Your task to perform on an android device: Clear the cart on amazon.com. Image 0: 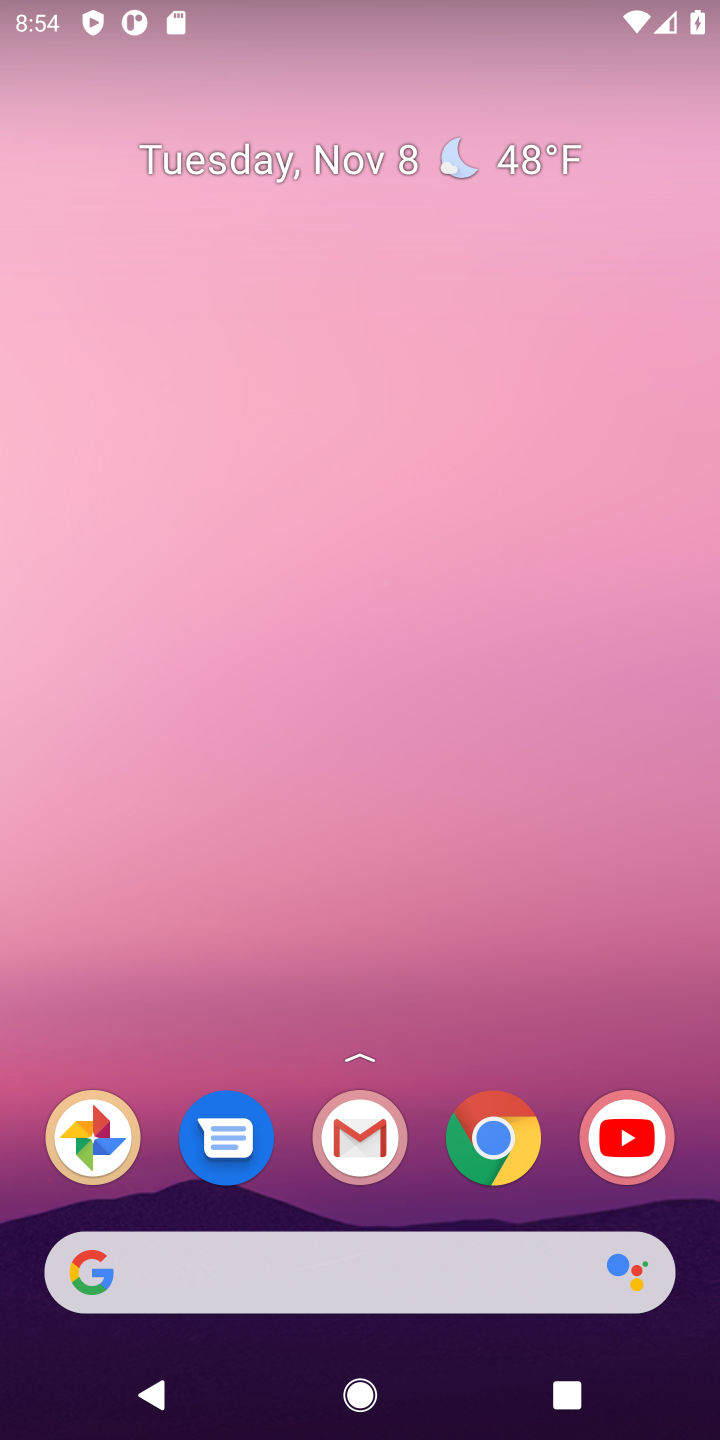
Step 0: press home button
Your task to perform on an android device: Clear the cart on amazon.com. Image 1: 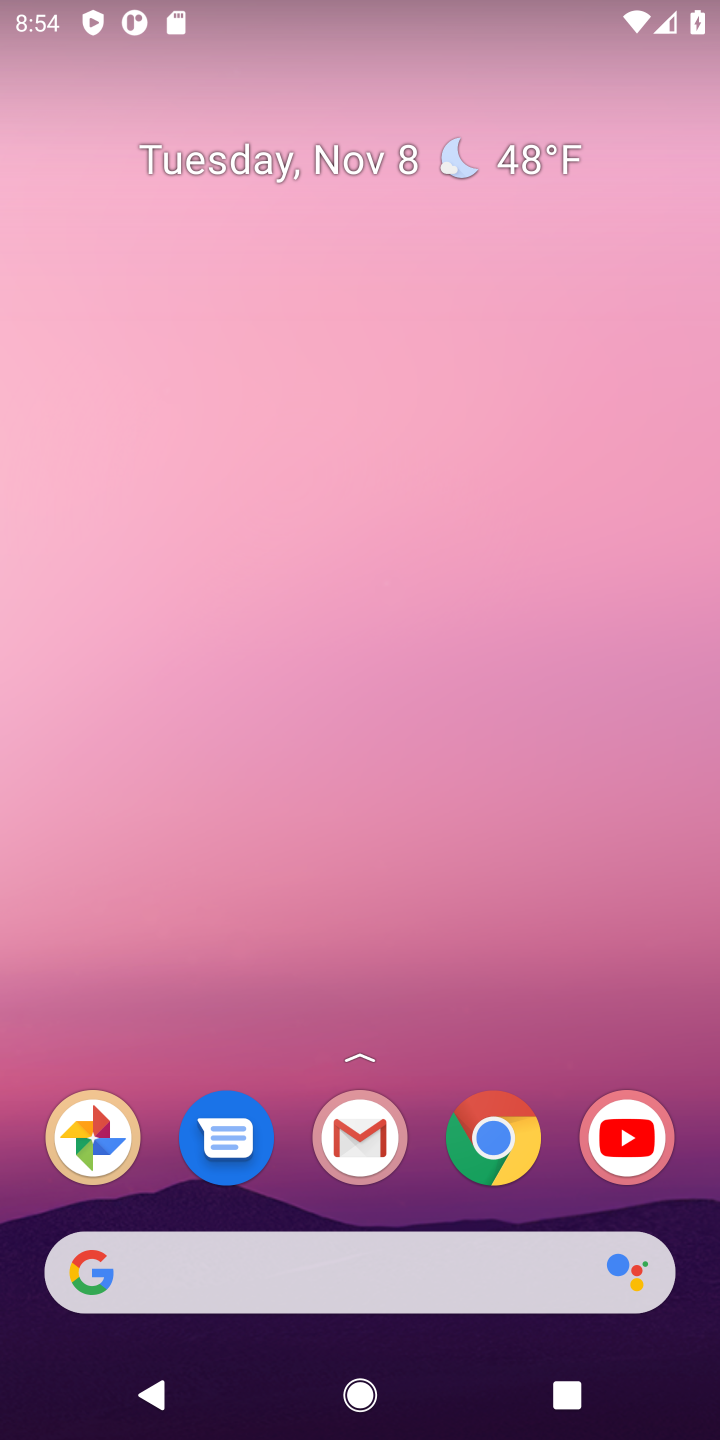
Step 1: click (500, 1124)
Your task to perform on an android device: Clear the cart on amazon.com. Image 2: 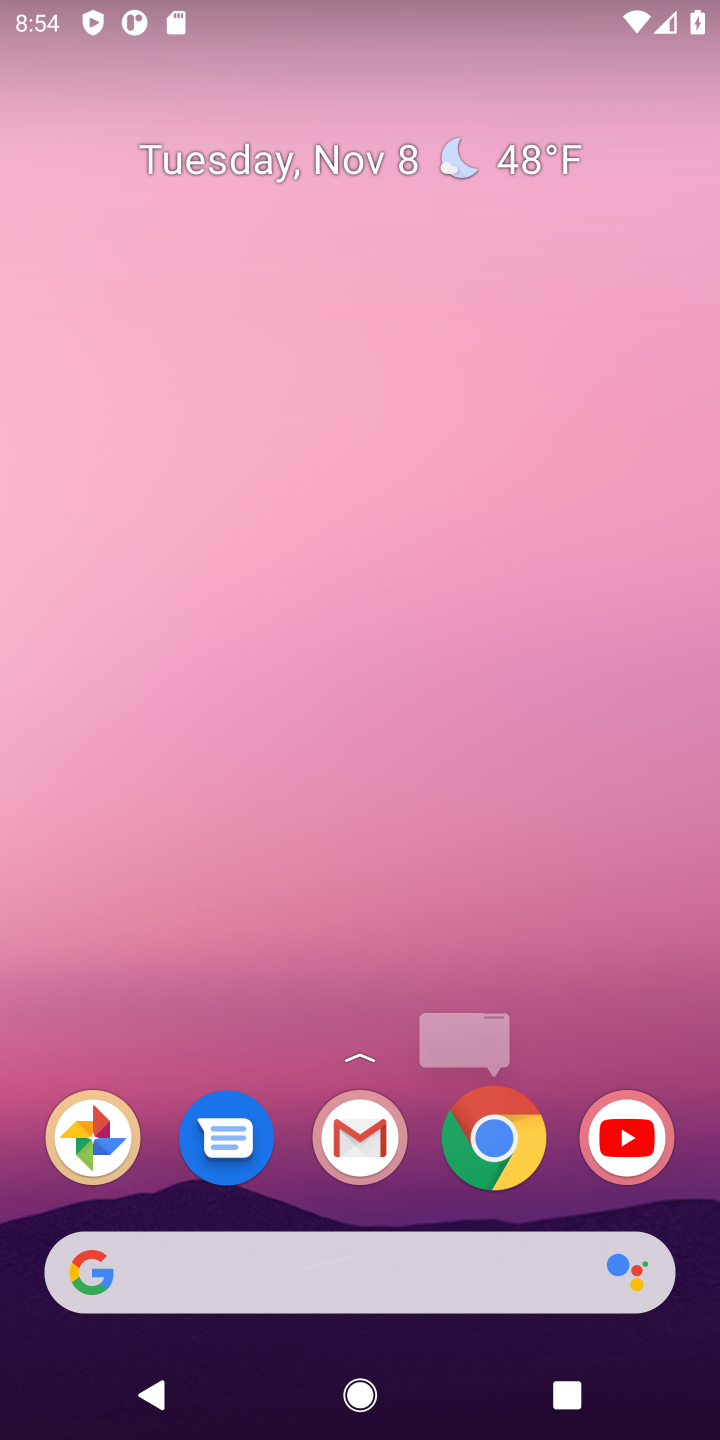
Step 2: click (492, 1112)
Your task to perform on an android device: Clear the cart on amazon.com. Image 3: 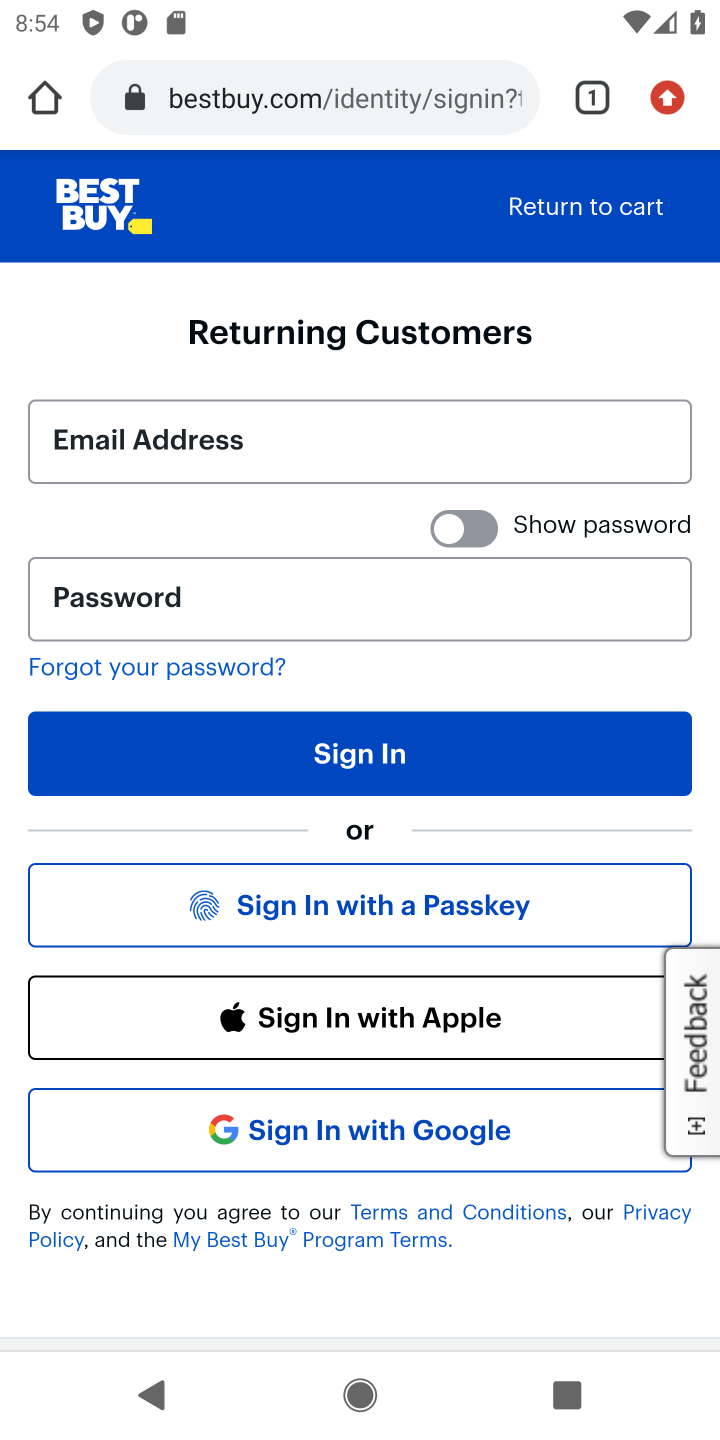
Step 3: click (305, 96)
Your task to perform on an android device: Clear the cart on amazon.com. Image 4: 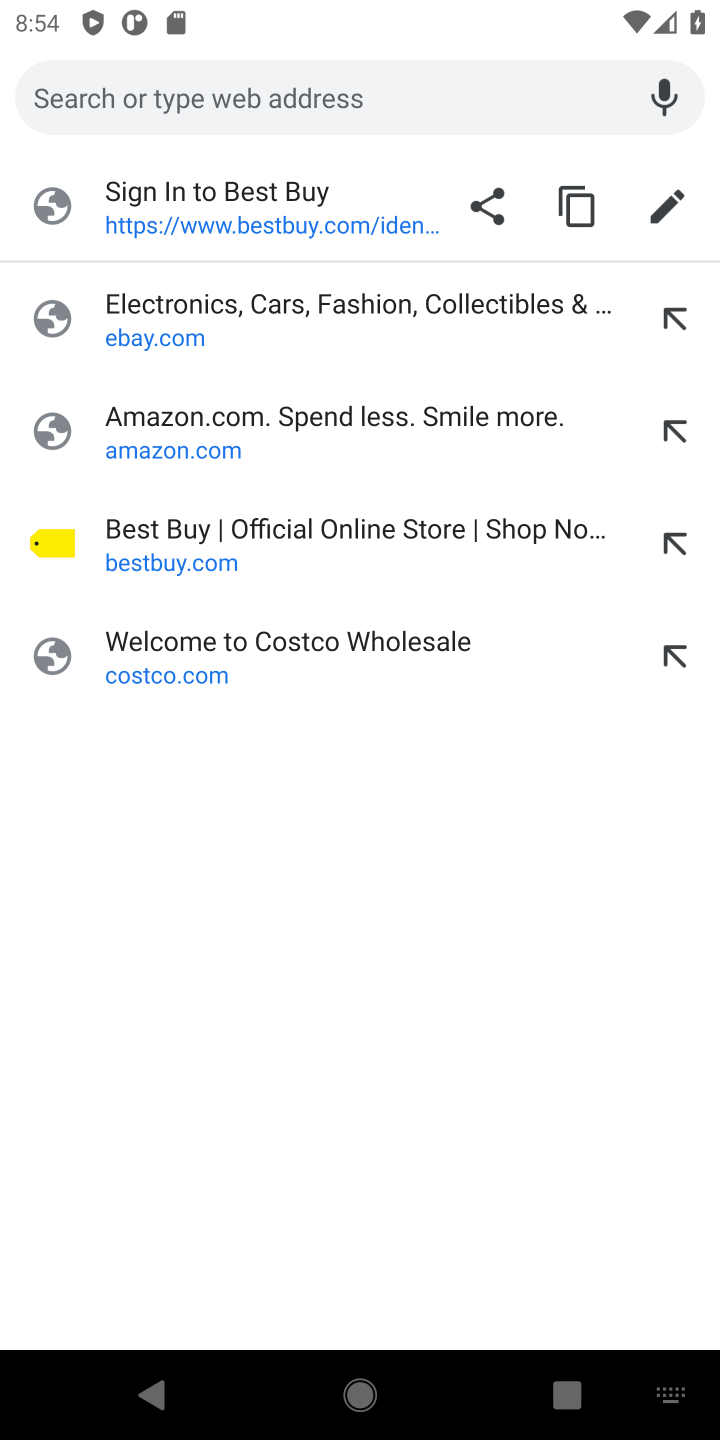
Step 4: click (176, 434)
Your task to perform on an android device: Clear the cart on amazon.com. Image 5: 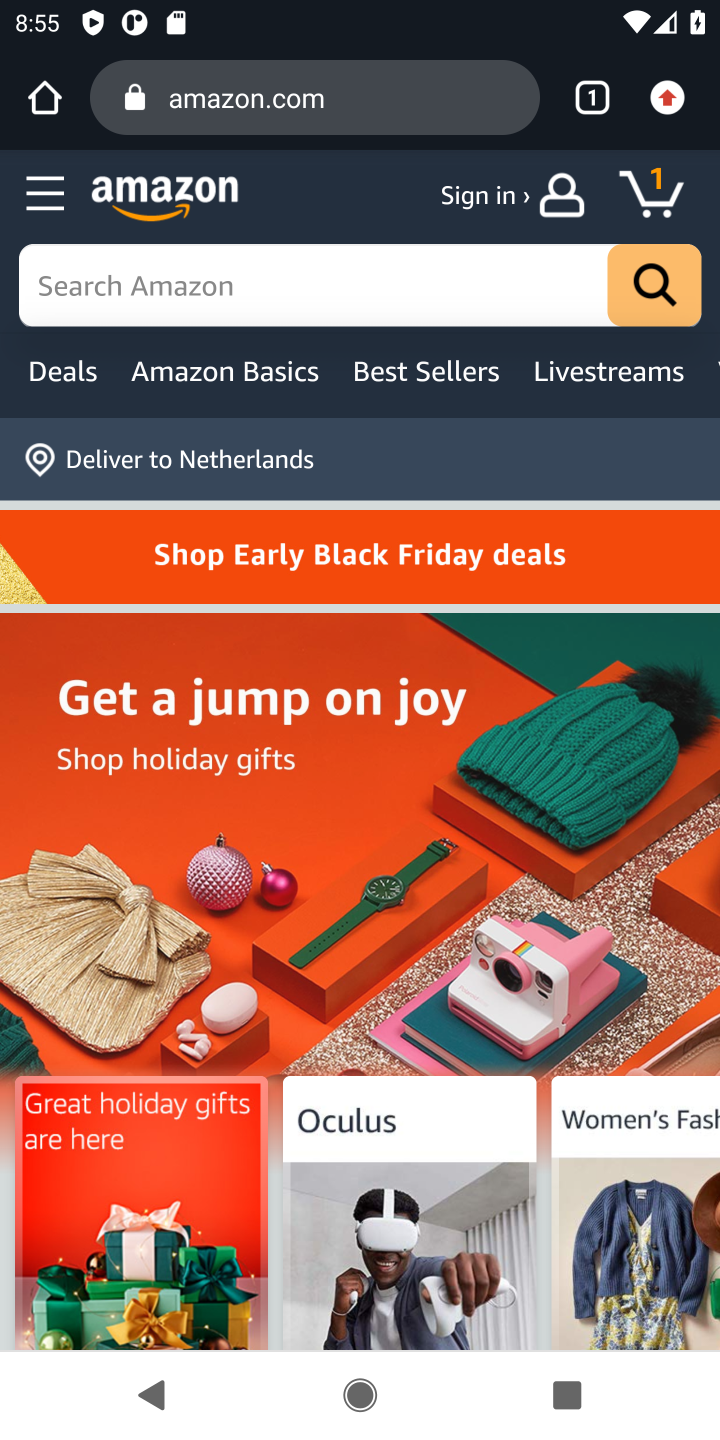
Step 5: click (167, 280)
Your task to perform on an android device: Clear the cart on amazon.com. Image 6: 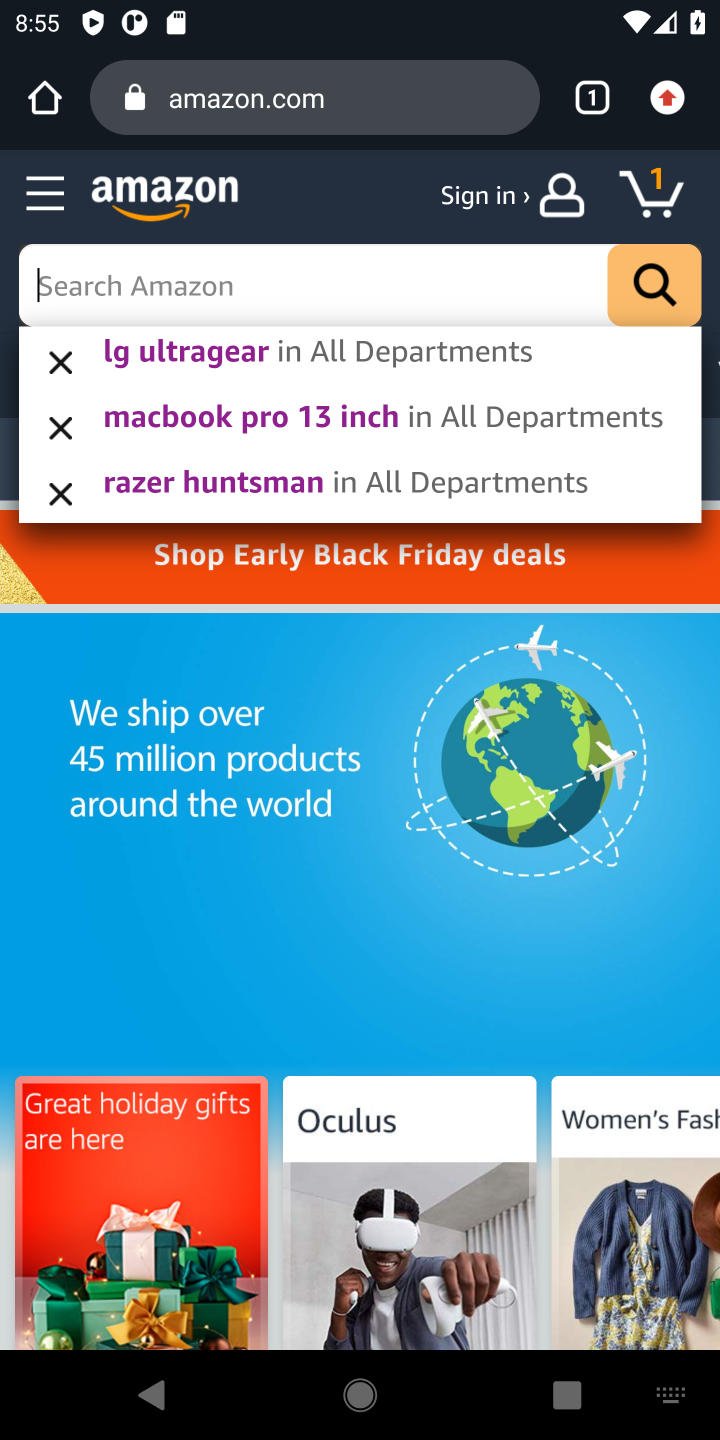
Step 6: click (652, 184)
Your task to perform on an android device: Clear the cart on amazon.com. Image 7: 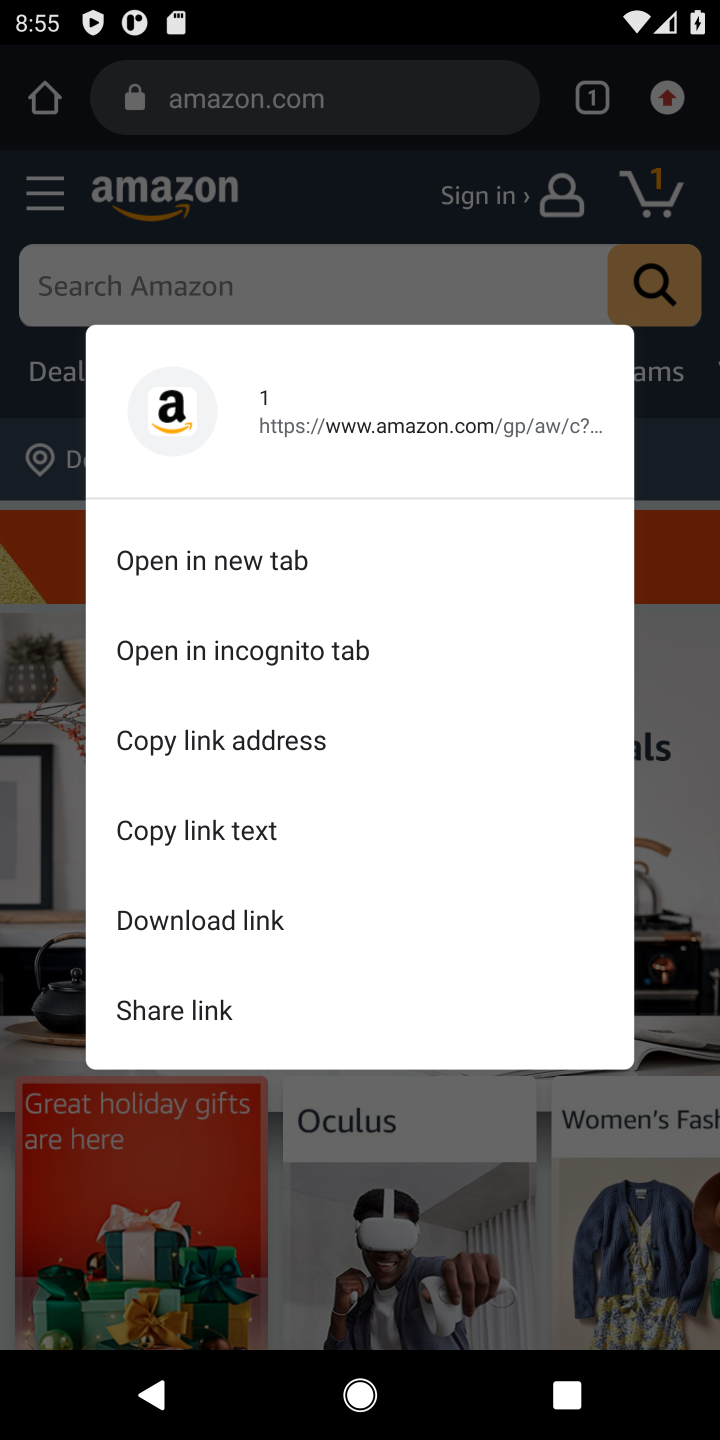
Step 7: click (649, 201)
Your task to perform on an android device: Clear the cart on amazon.com. Image 8: 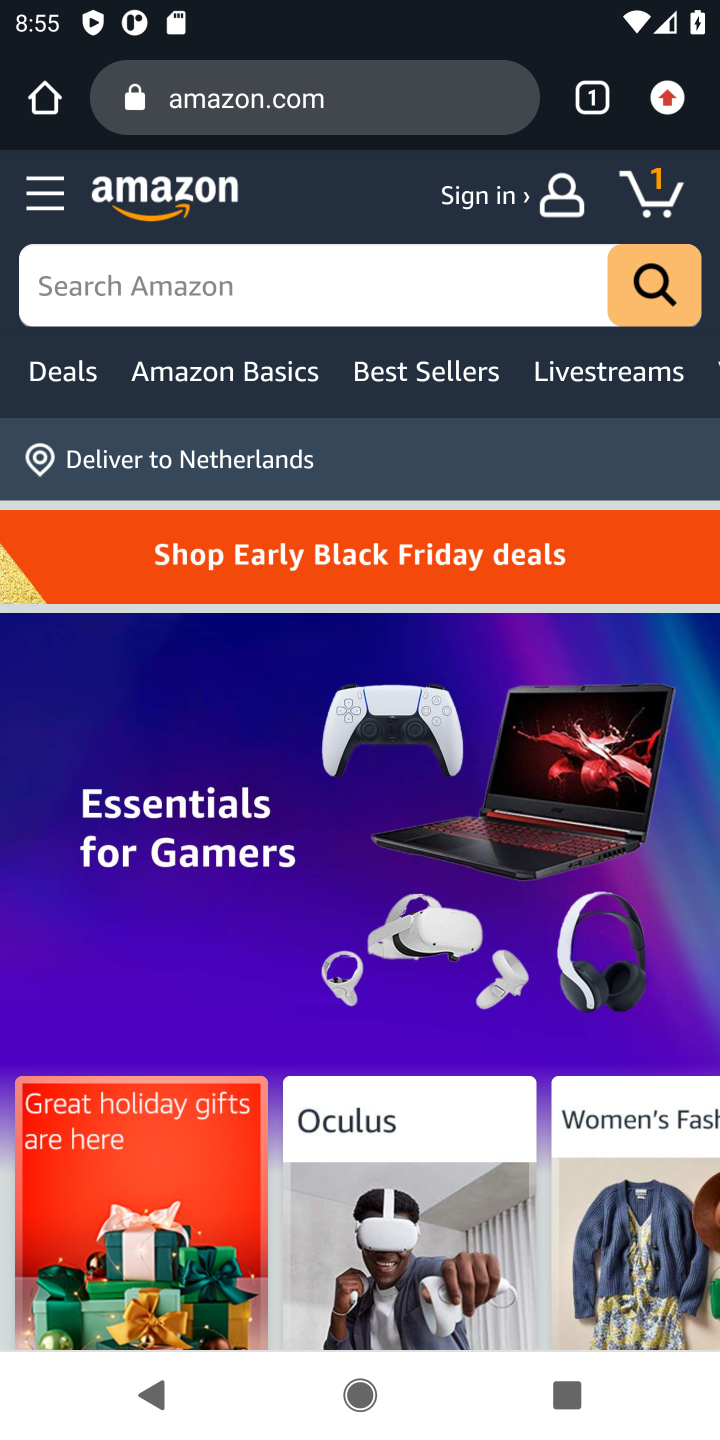
Step 8: click (663, 178)
Your task to perform on an android device: Clear the cart on amazon.com. Image 9: 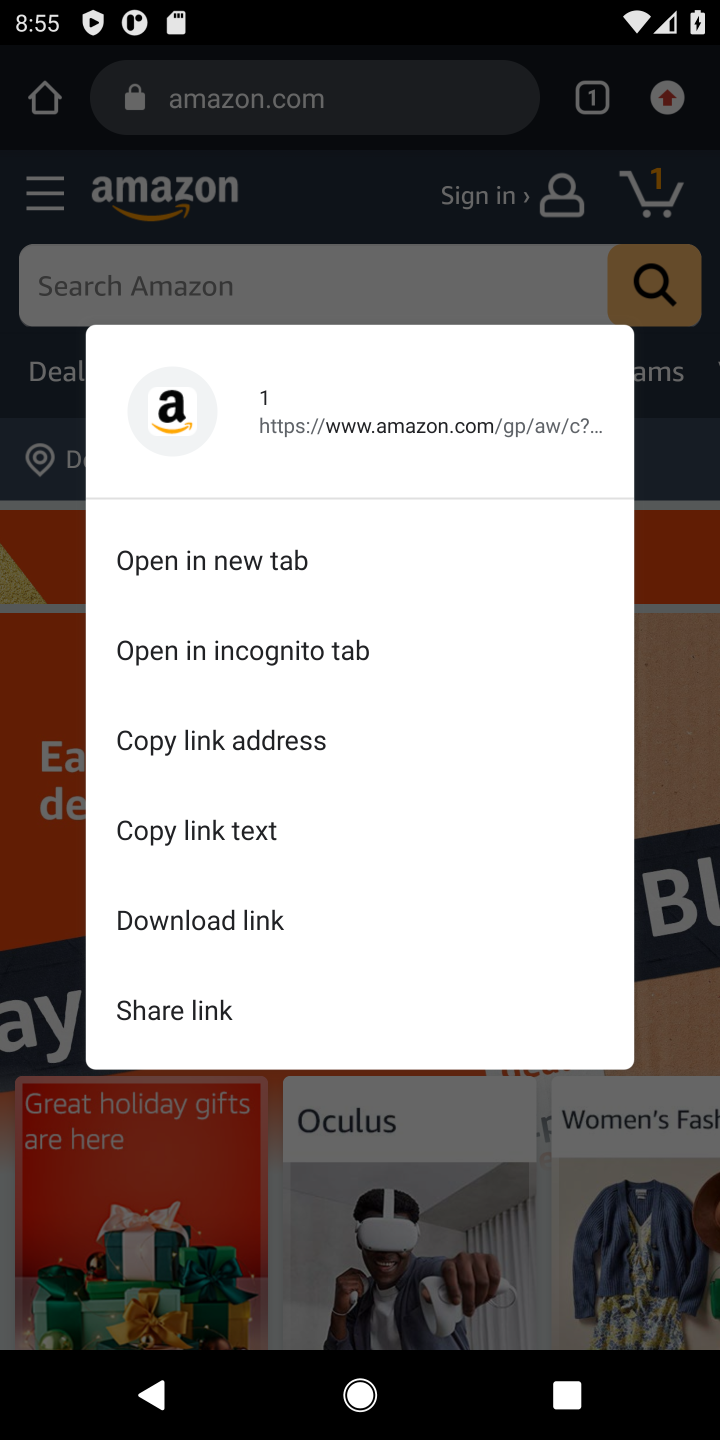
Step 9: click (644, 202)
Your task to perform on an android device: Clear the cart on amazon.com. Image 10: 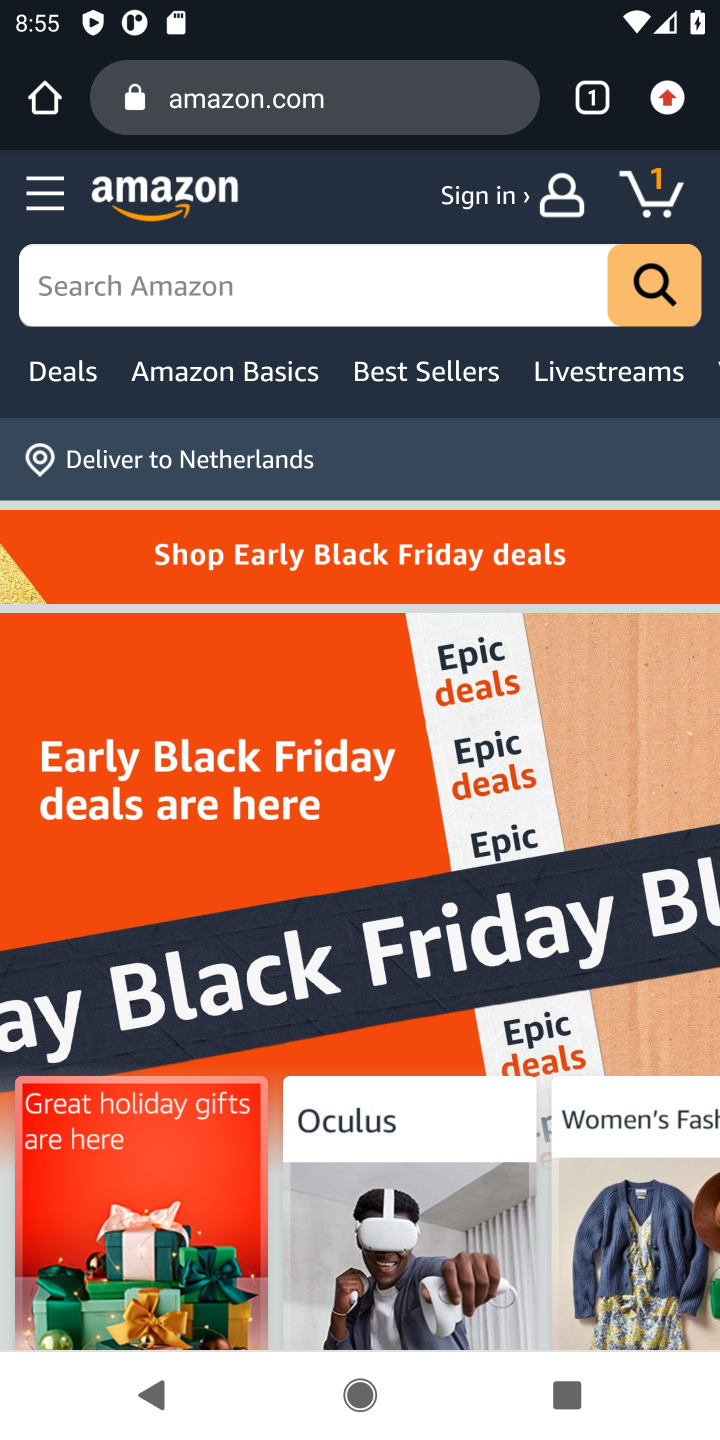
Step 10: click (664, 183)
Your task to perform on an android device: Clear the cart on amazon.com. Image 11: 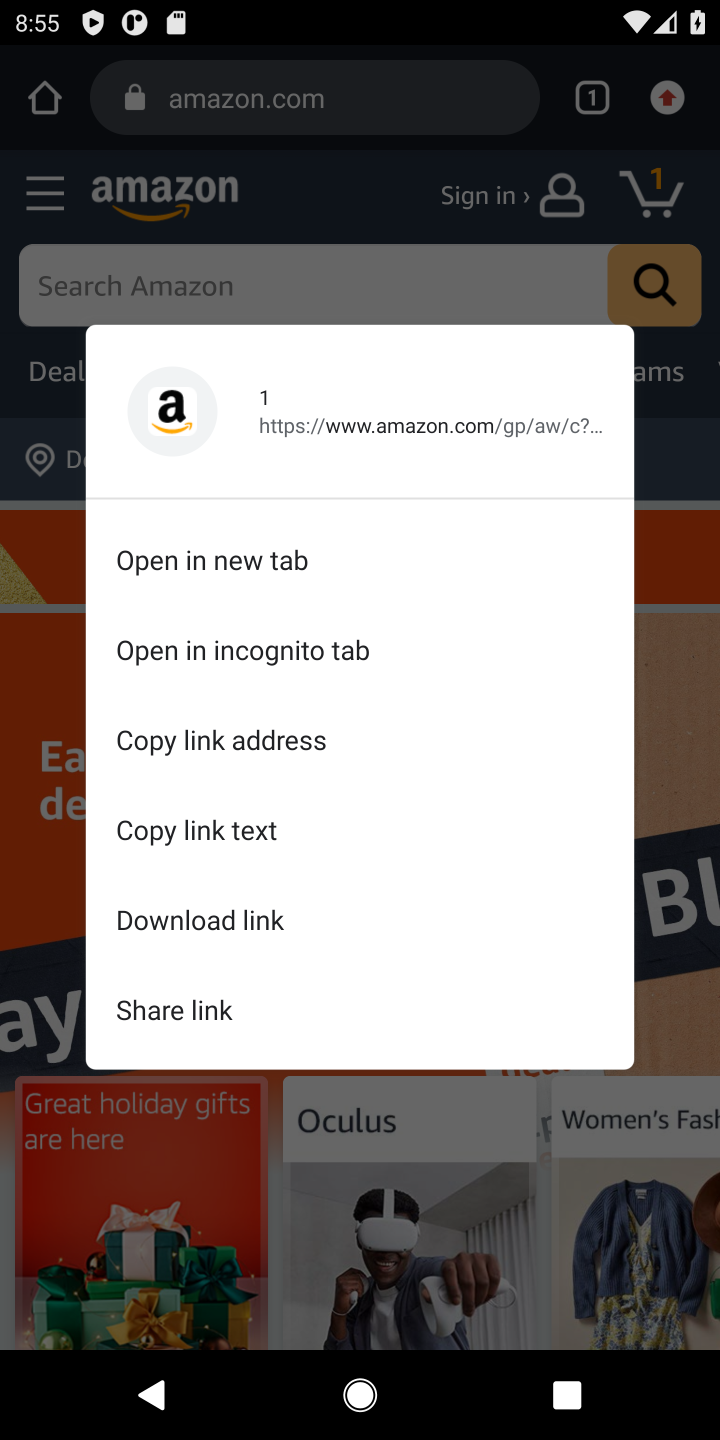
Step 11: click (664, 189)
Your task to perform on an android device: Clear the cart on amazon.com. Image 12: 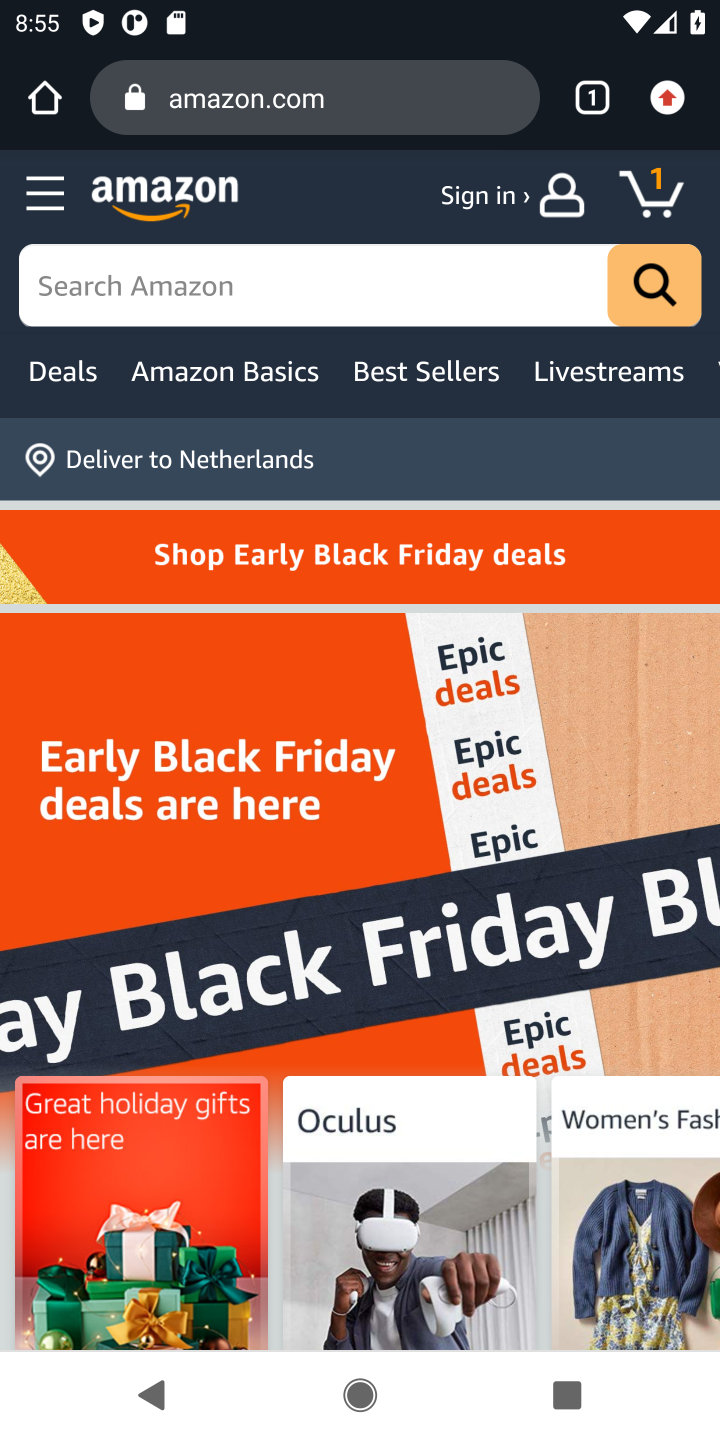
Step 12: click (655, 192)
Your task to perform on an android device: Clear the cart on amazon.com. Image 13: 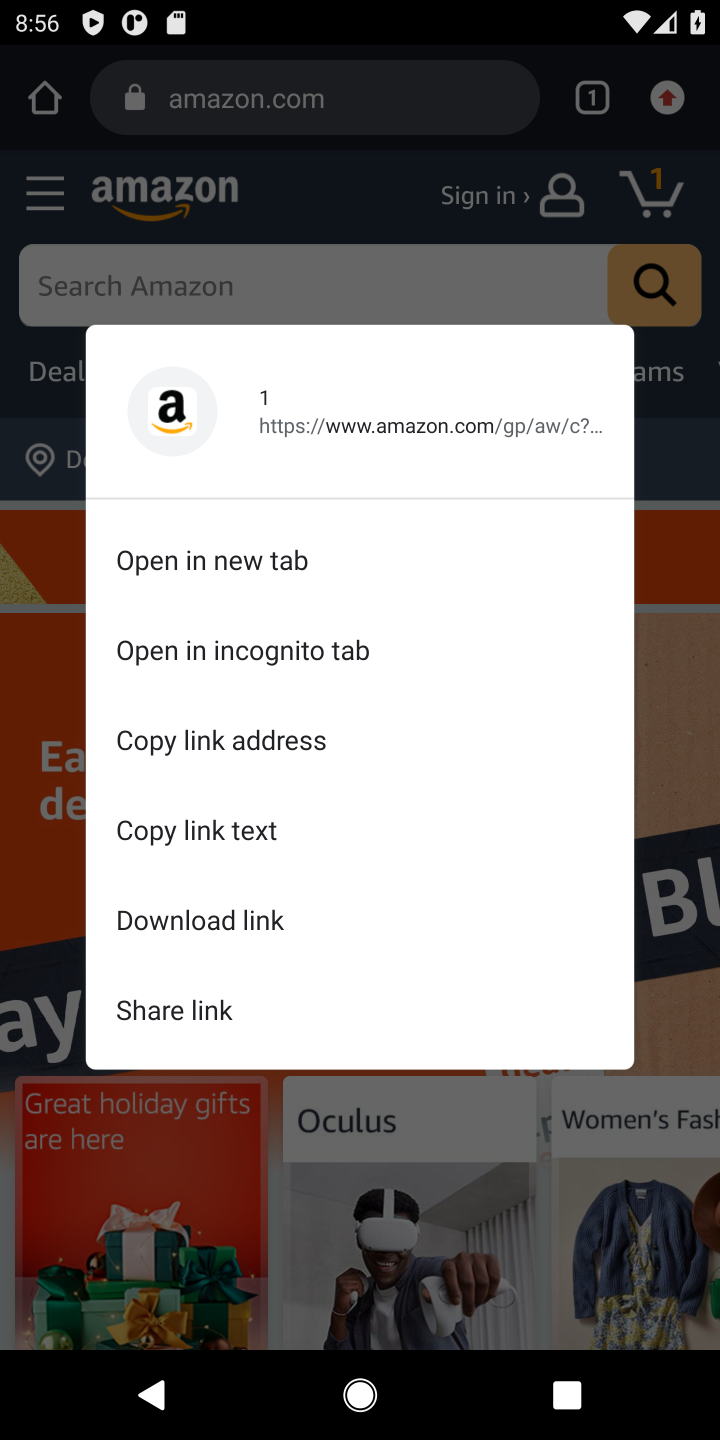
Step 13: click (659, 184)
Your task to perform on an android device: Clear the cart on amazon.com. Image 14: 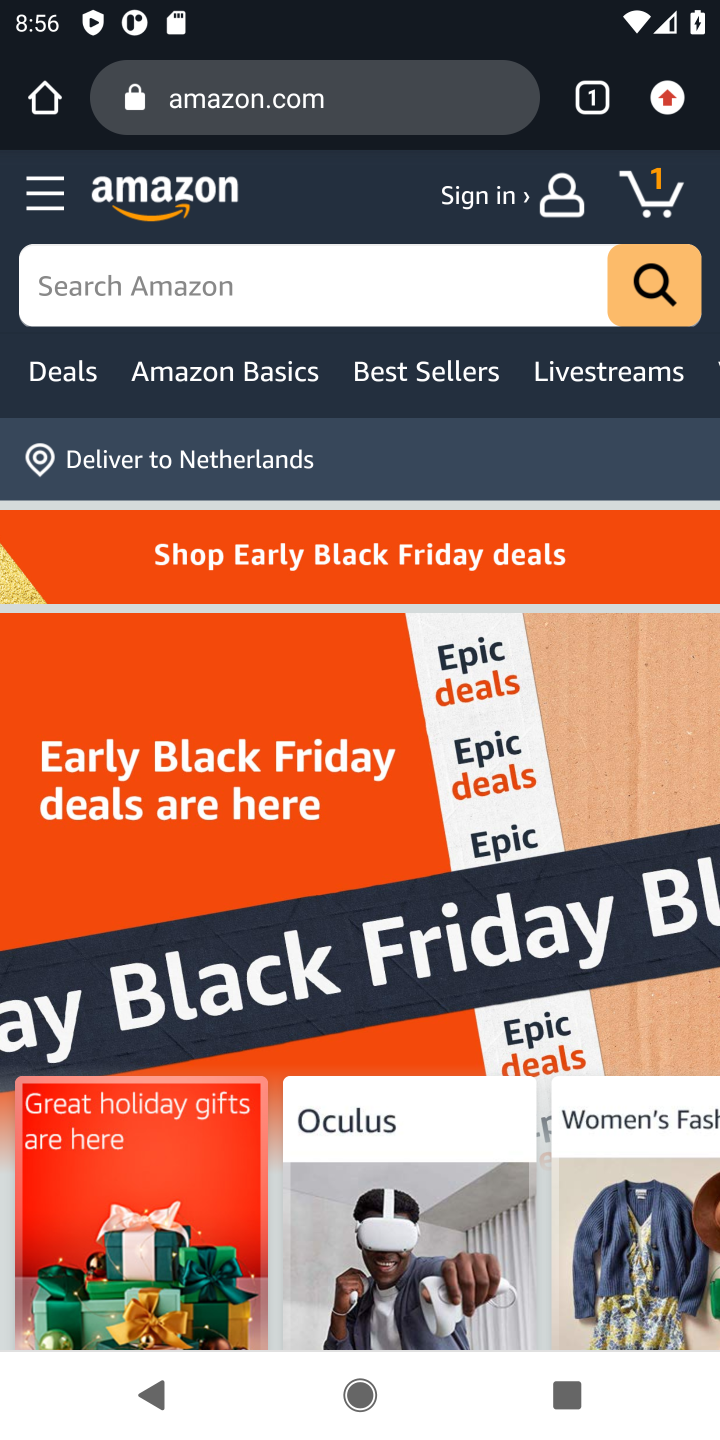
Step 14: click (659, 210)
Your task to perform on an android device: Clear the cart on amazon.com. Image 15: 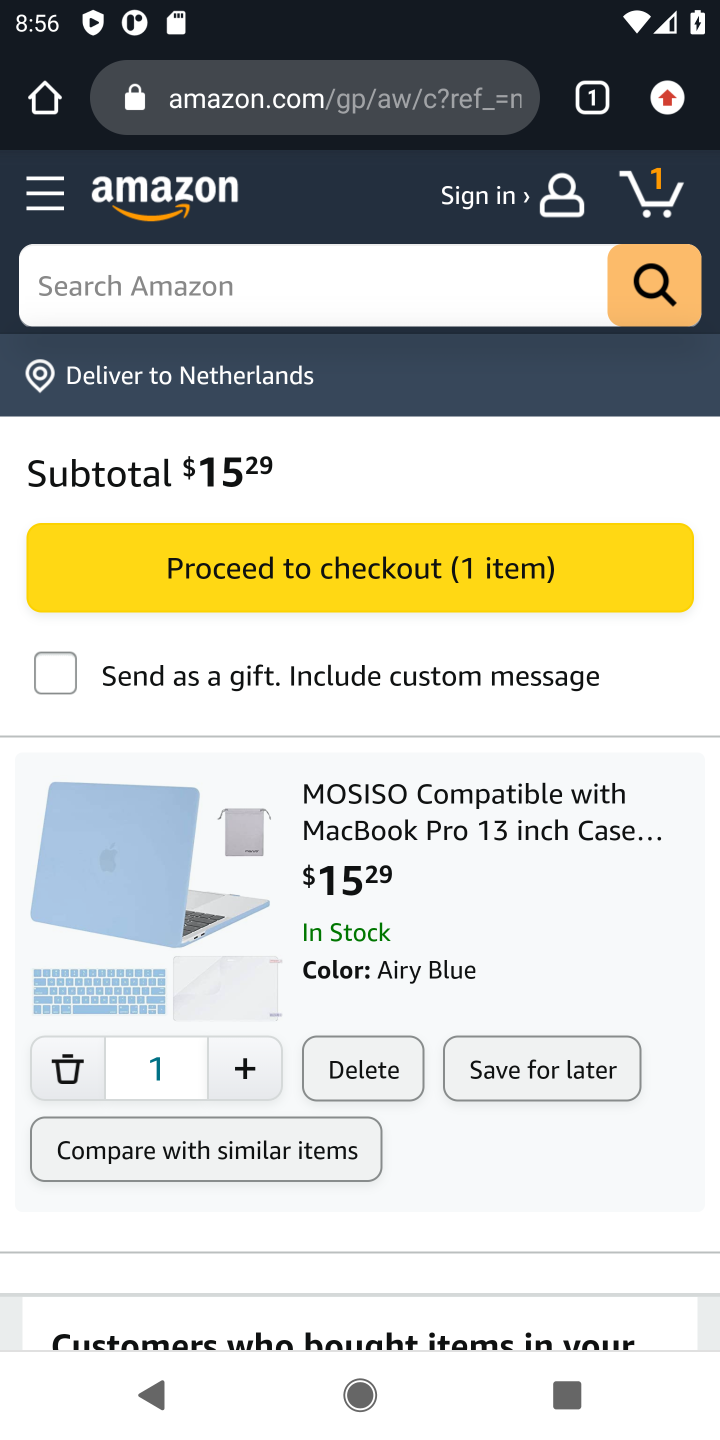
Step 15: click (364, 1062)
Your task to perform on an android device: Clear the cart on amazon.com. Image 16: 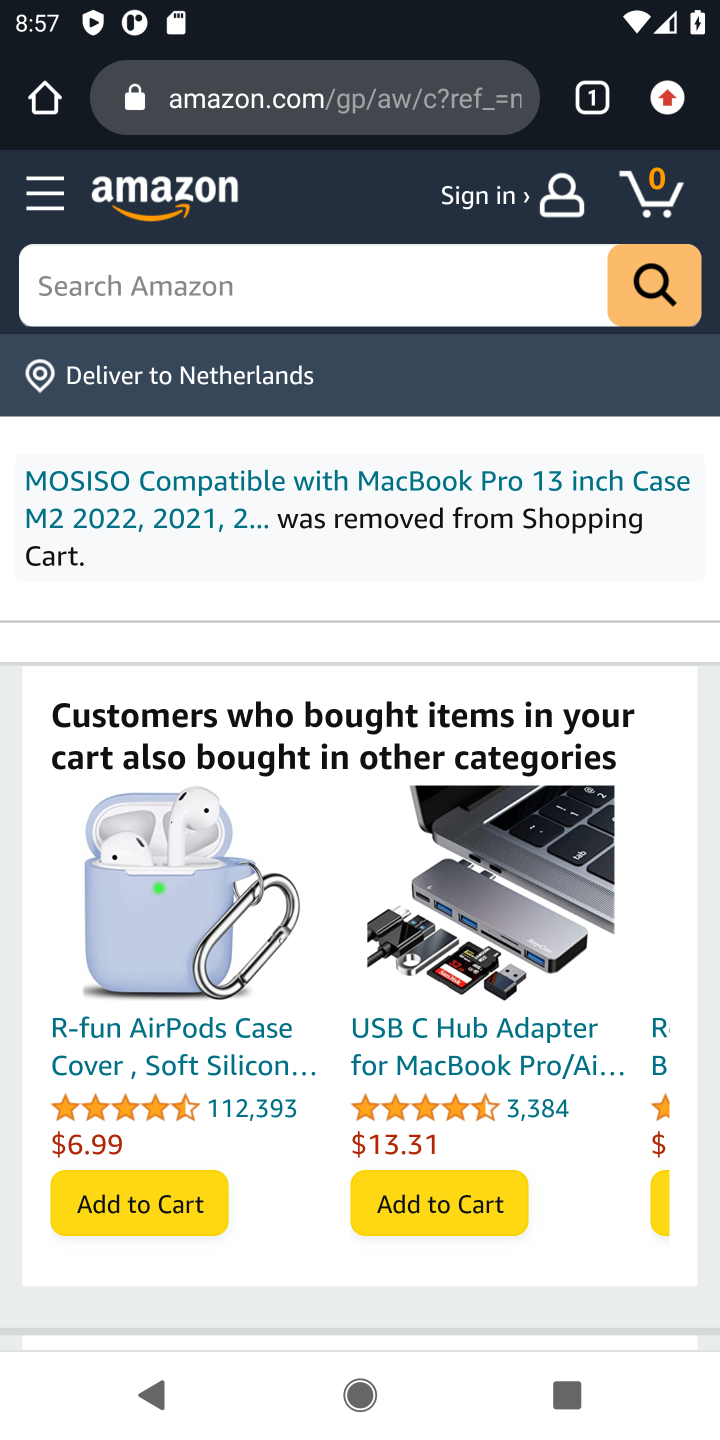
Step 16: task complete